Your task to perform on an android device: What's the weather going to be tomorrow? Image 0: 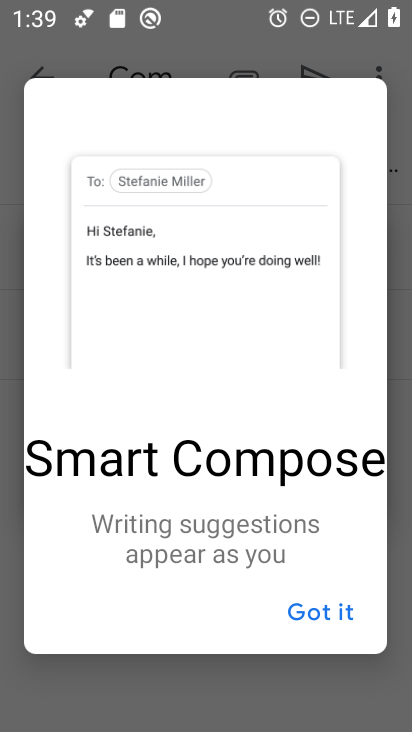
Step 0: drag from (356, 594) to (373, 499)
Your task to perform on an android device: What's the weather going to be tomorrow? Image 1: 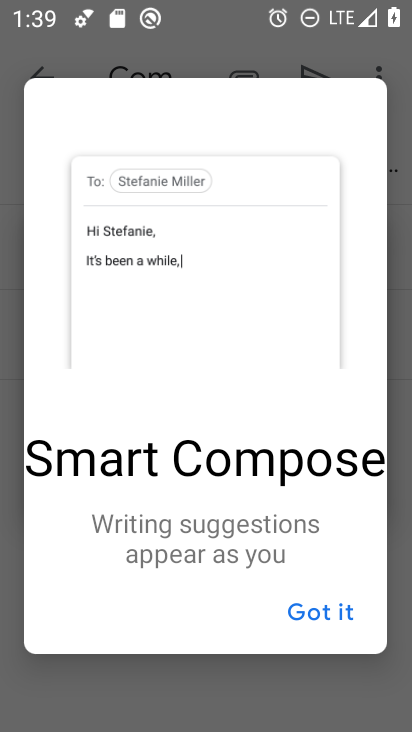
Step 1: press home button
Your task to perform on an android device: What's the weather going to be tomorrow? Image 2: 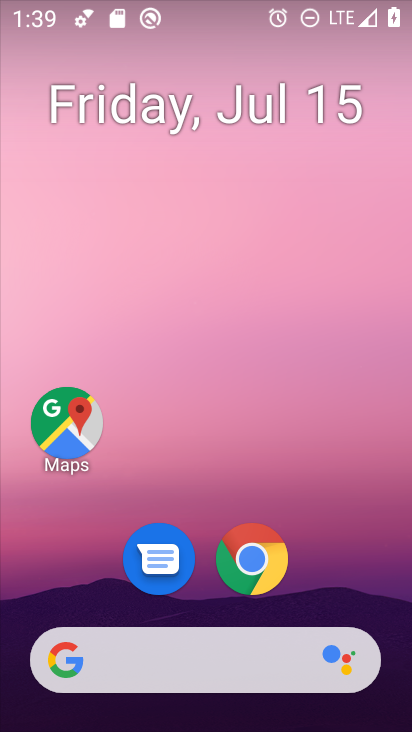
Step 2: drag from (347, 555) to (367, 68)
Your task to perform on an android device: What's the weather going to be tomorrow? Image 3: 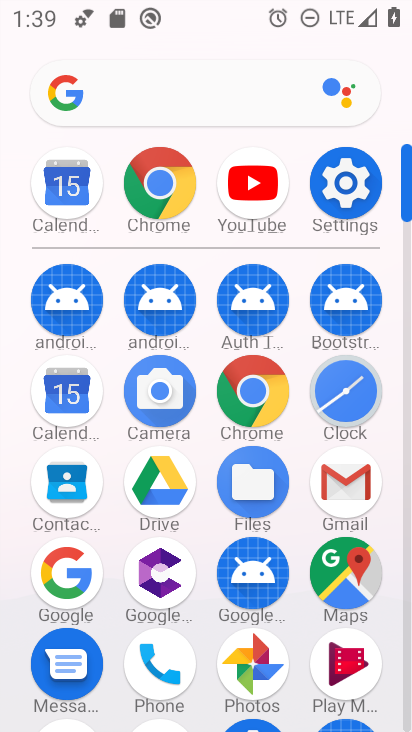
Step 3: click (191, 98)
Your task to perform on an android device: What's the weather going to be tomorrow? Image 4: 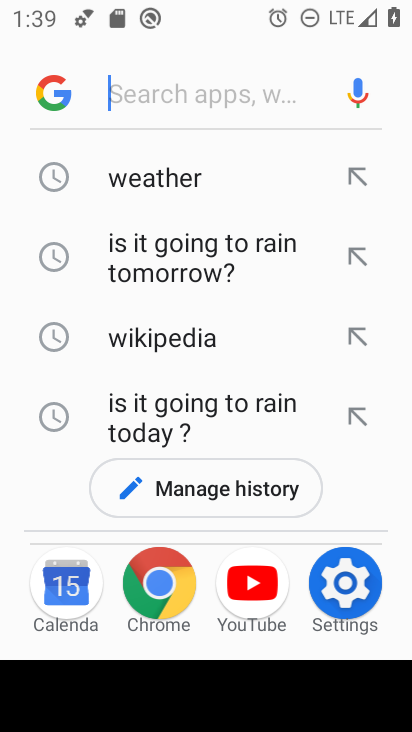
Step 4: click (174, 182)
Your task to perform on an android device: What's the weather going to be tomorrow? Image 5: 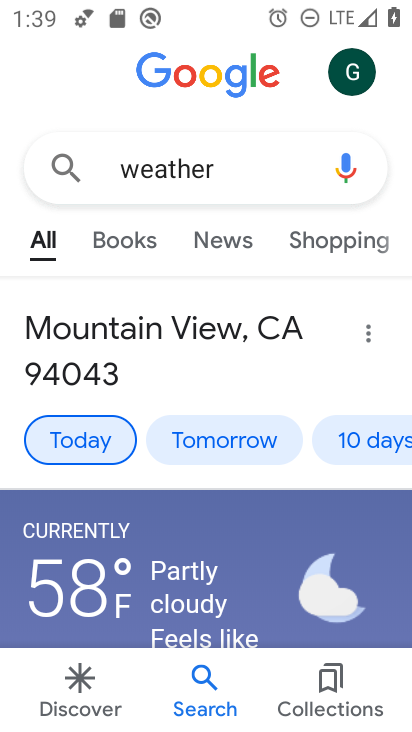
Step 5: drag from (303, 533) to (310, 312)
Your task to perform on an android device: What's the weather going to be tomorrow? Image 6: 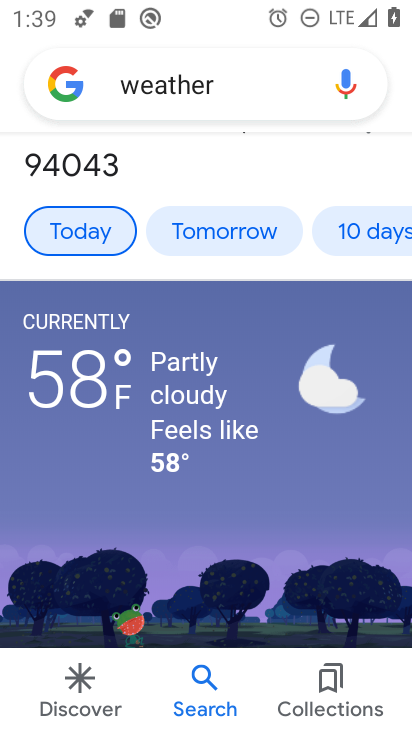
Step 6: click (234, 230)
Your task to perform on an android device: What's the weather going to be tomorrow? Image 7: 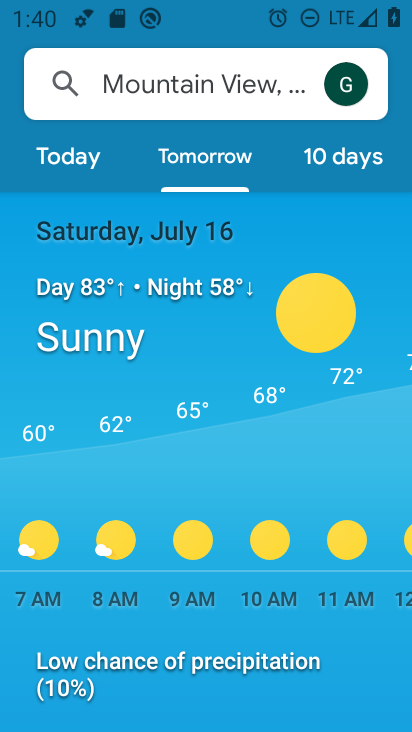
Step 7: task complete